Your task to perform on an android device: empty trash in the gmail app Image 0: 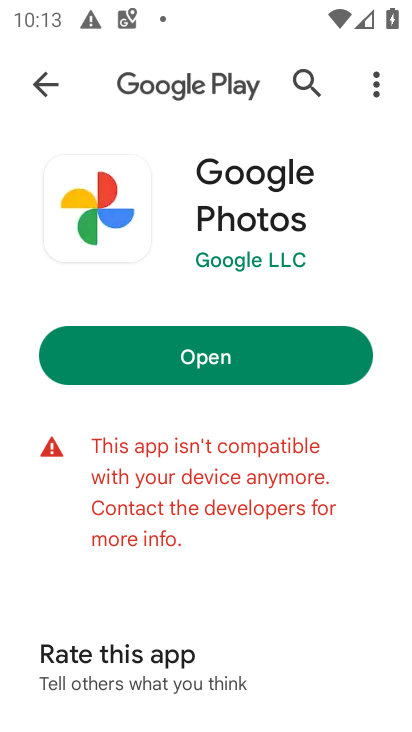
Step 0: press home button
Your task to perform on an android device: empty trash in the gmail app Image 1: 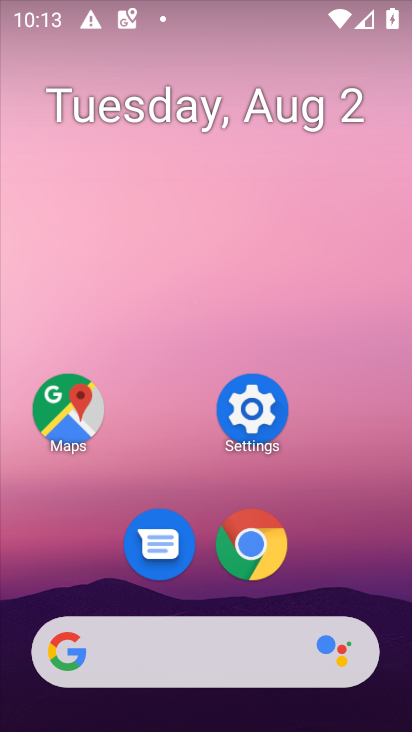
Step 1: drag from (197, 638) to (298, 125)
Your task to perform on an android device: empty trash in the gmail app Image 2: 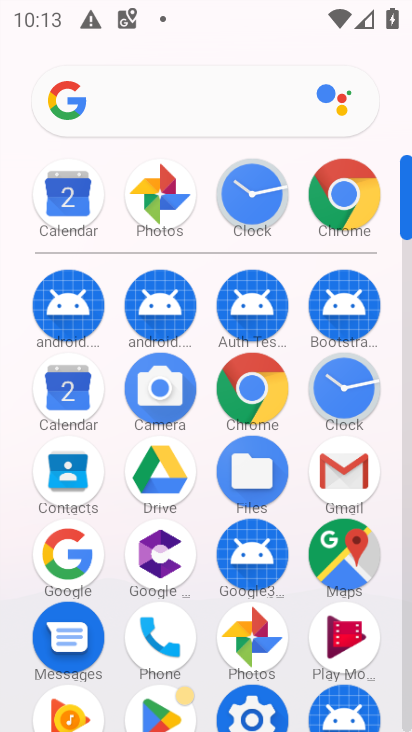
Step 2: click (348, 471)
Your task to perform on an android device: empty trash in the gmail app Image 3: 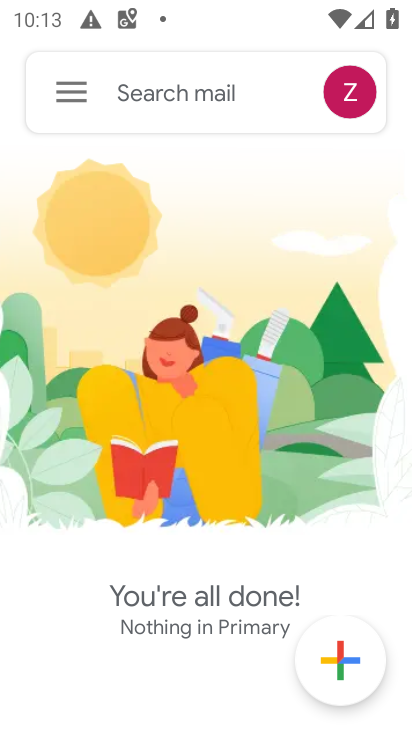
Step 3: click (72, 88)
Your task to perform on an android device: empty trash in the gmail app Image 4: 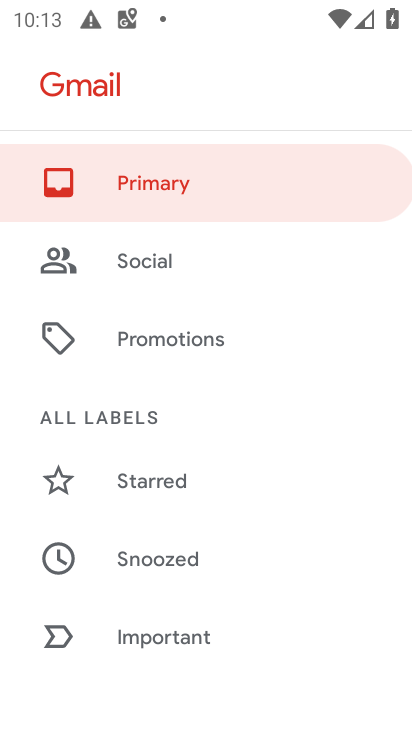
Step 4: drag from (256, 587) to (310, 136)
Your task to perform on an android device: empty trash in the gmail app Image 5: 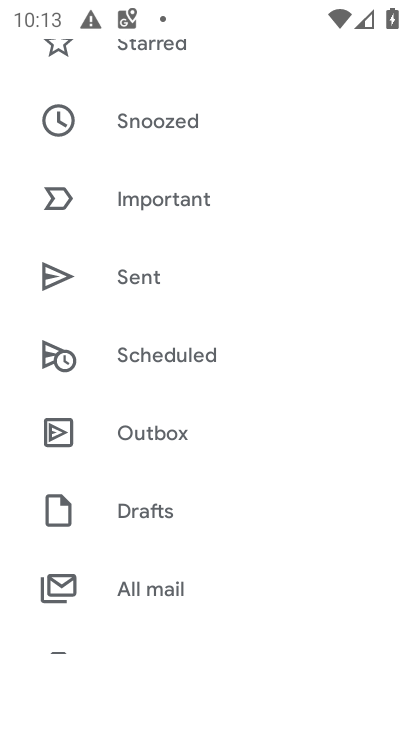
Step 5: drag from (224, 556) to (285, 179)
Your task to perform on an android device: empty trash in the gmail app Image 6: 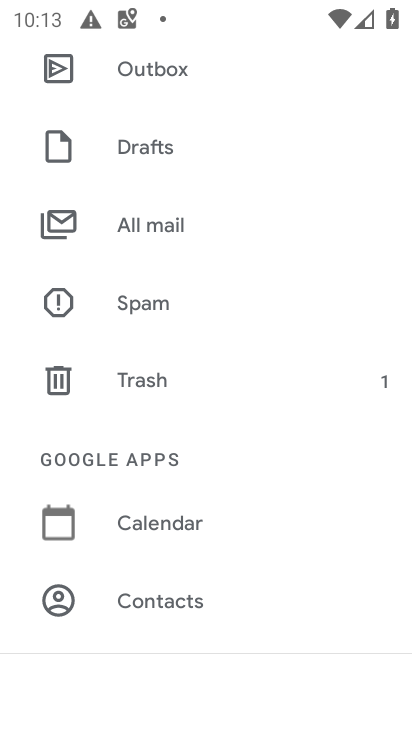
Step 6: click (158, 376)
Your task to perform on an android device: empty trash in the gmail app Image 7: 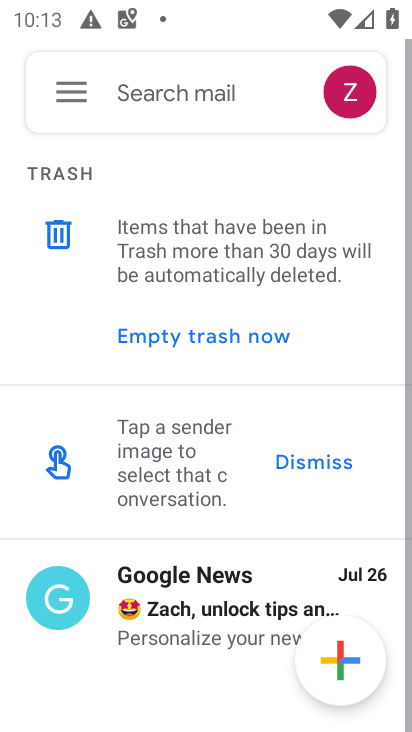
Step 7: click (135, 338)
Your task to perform on an android device: empty trash in the gmail app Image 8: 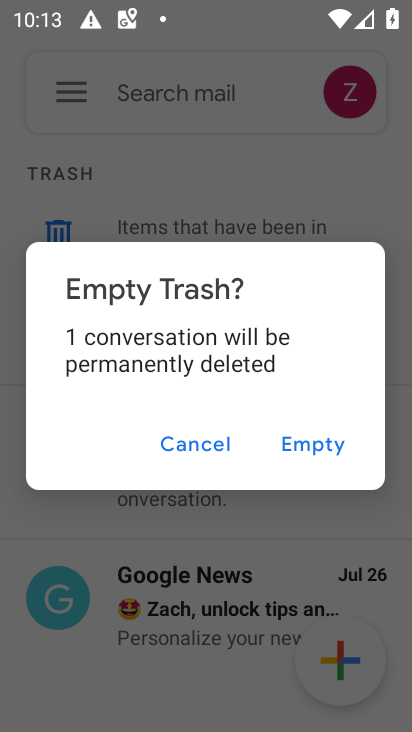
Step 8: click (293, 443)
Your task to perform on an android device: empty trash in the gmail app Image 9: 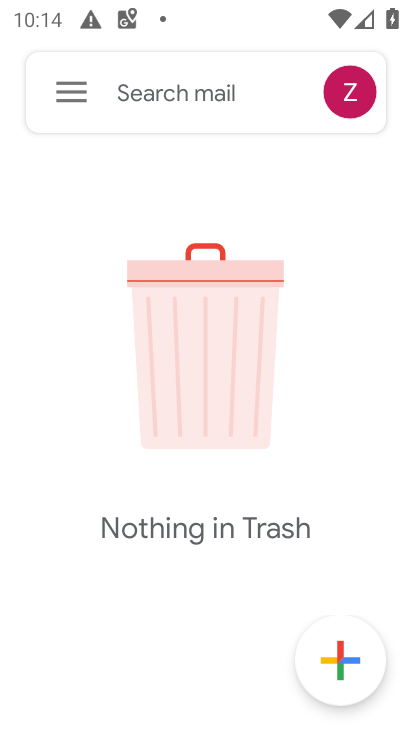
Step 9: task complete